Your task to perform on an android device: What's the weather going to be tomorrow? Image 0: 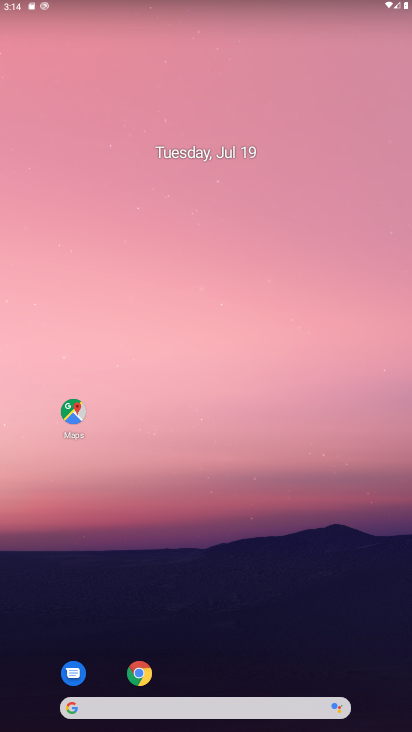
Step 0: click (172, 708)
Your task to perform on an android device: What's the weather going to be tomorrow? Image 1: 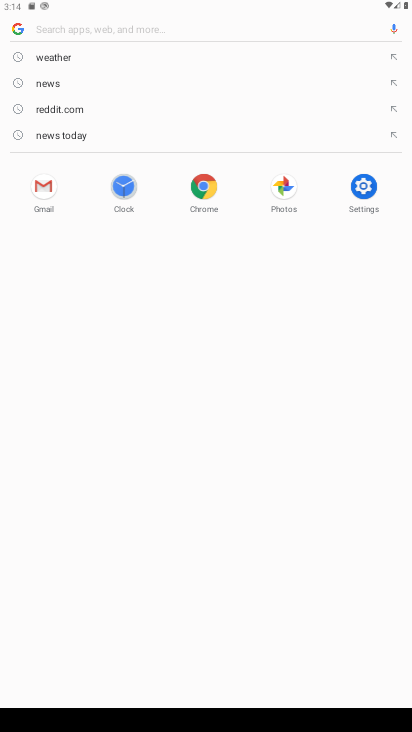
Step 1: click (64, 56)
Your task to perform on an android device: What's the weather going to be tomorrow? Image 2: 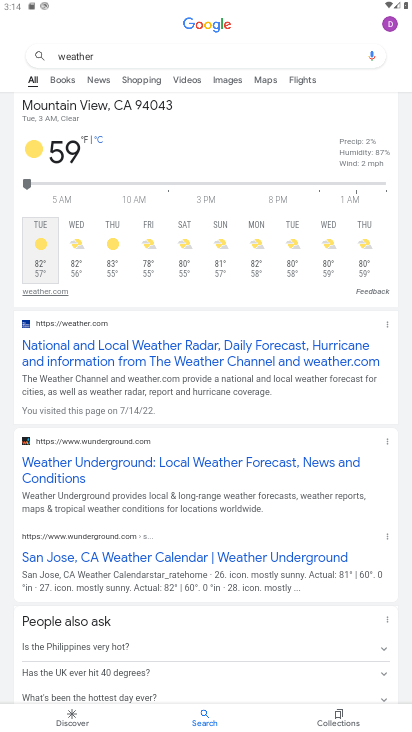
Step 2: click (81, 249)
Your task to perform on an android device: What's the weather going to be tomorrow? Image 3: 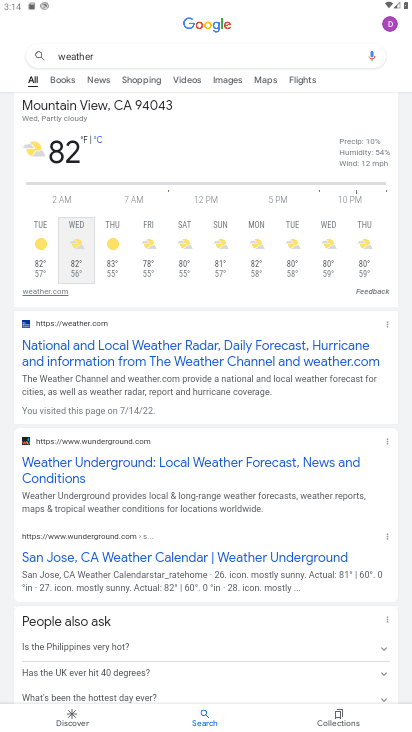
Step 3: task complete